Your task to perform on an android device: Open network settings Image 0: 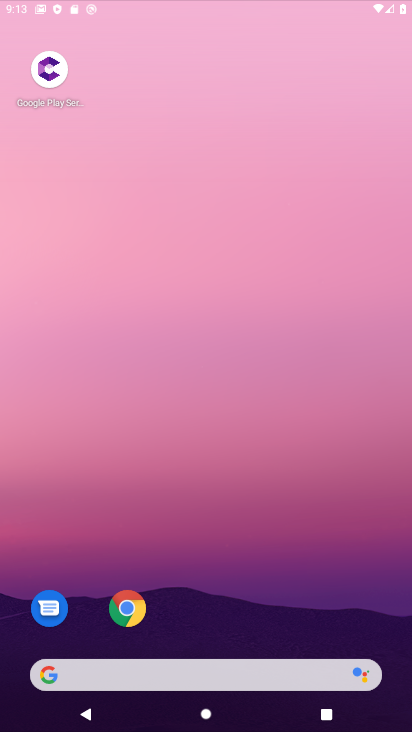
Step 0: press home button
Your task to perform on an android device: Open network settings Image 1: 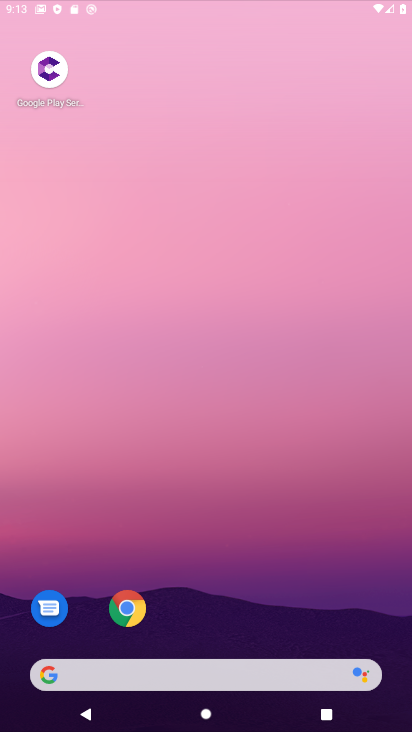
Step 1: click (259, 178)
Your task to perform on an android device: Open network settings Image 2: 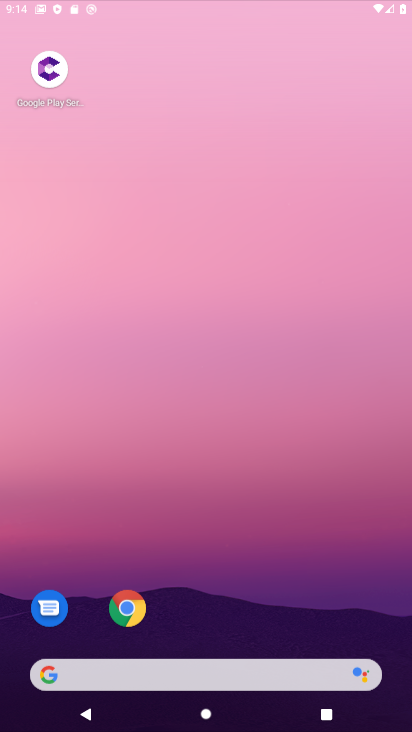
Step 2: drag from (210, 594) to (234, 156)
Your task to perform on an android device: Open network settings Image 3: 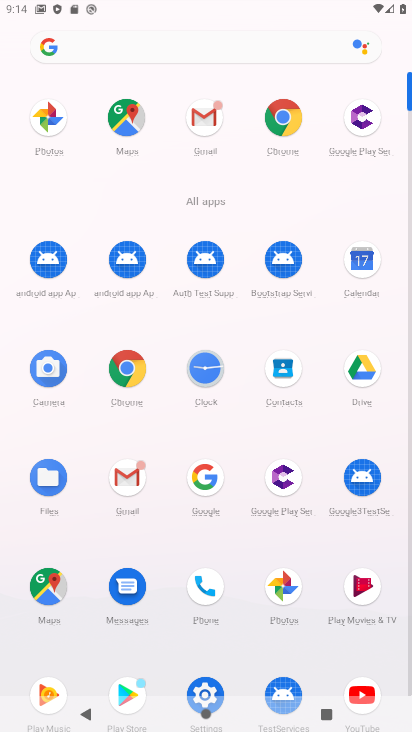
Step 3: click (132, 482)
Your task to perform on an android device: Open network settings Image 4: 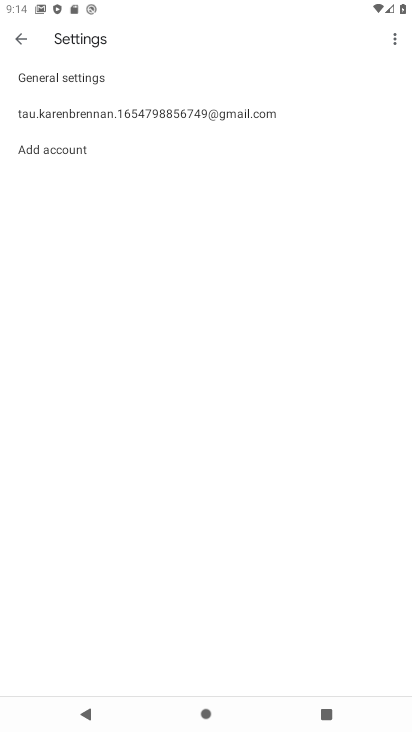
Step 4: click (28, 40)
Your task to perform on an android device: Open network settings Image 5: 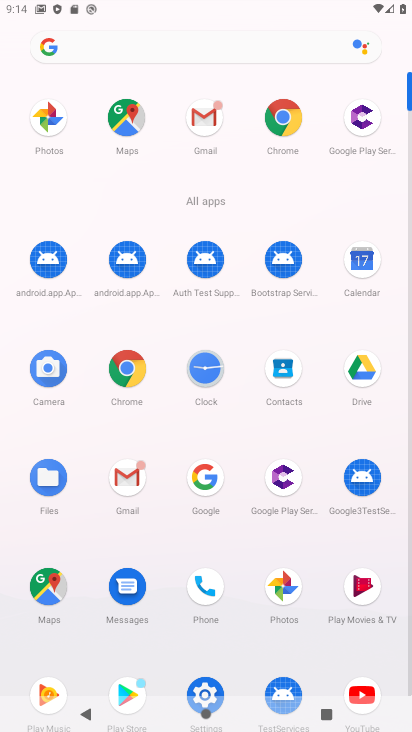
Step 5: click (207, 698)
Your task to perform on an android device: Open network settings Image 6: 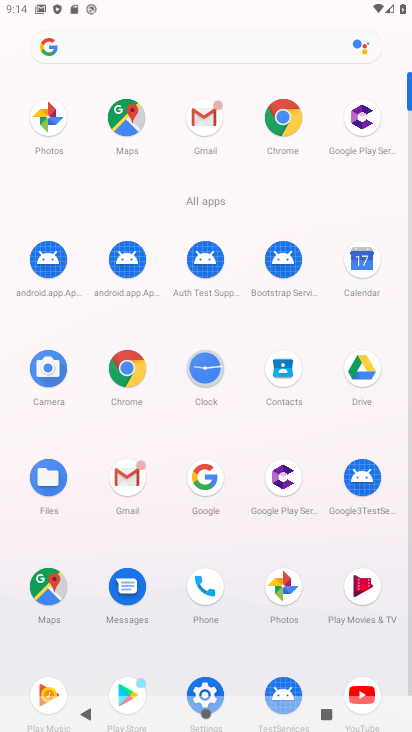
Step 6: drag from (255, 580) to (249, 350)
Your task to perform on an android device: Open network settings Image 7: 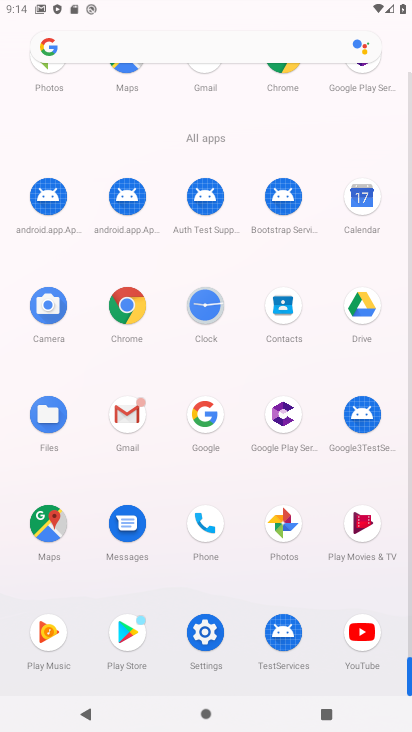
Step 7: click (210, 636)
Your task to perform on an android device: Open network settings Image 8: 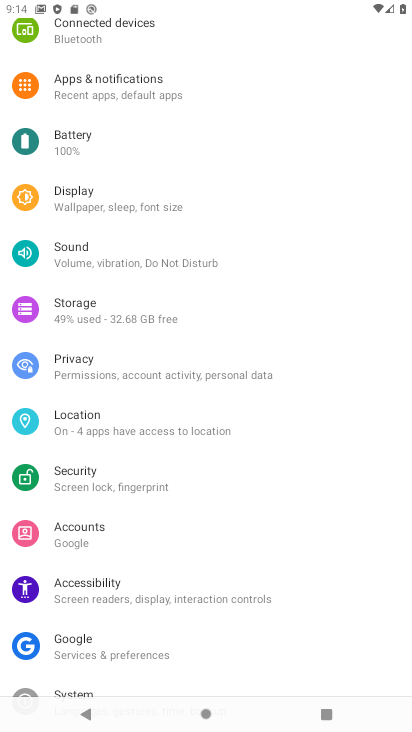
Step 8: drag from (120, 192) to (190, 483)
Your task to perform on an android device: Open network settings Image 9: 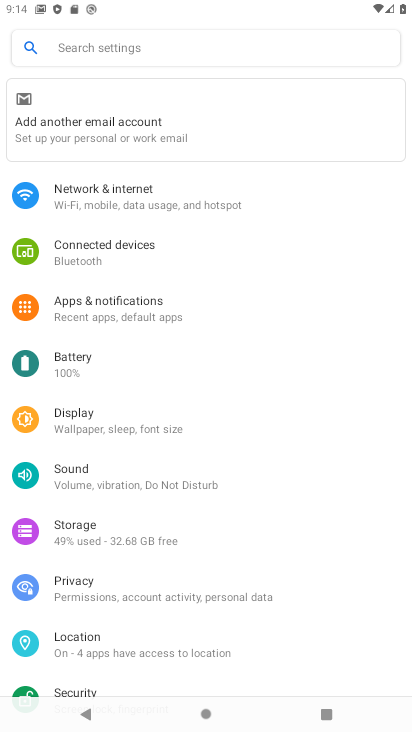
Step 9: click (98, 189)
Your task to perform on an android device: Open network settings Image 10: 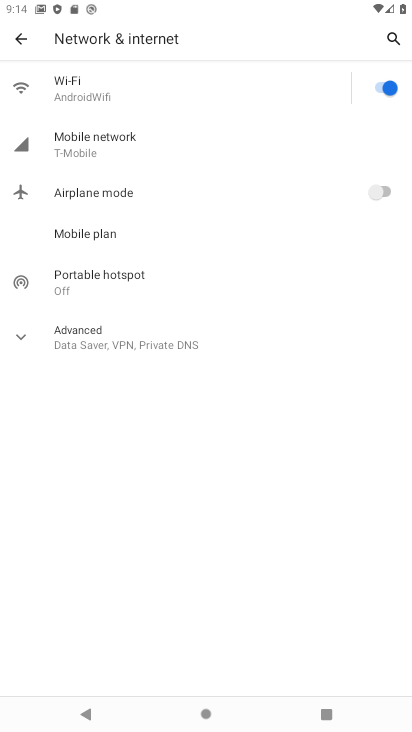
Step 10: task complete